Your task to perform on an android device: Go to privacy settings Image 0: 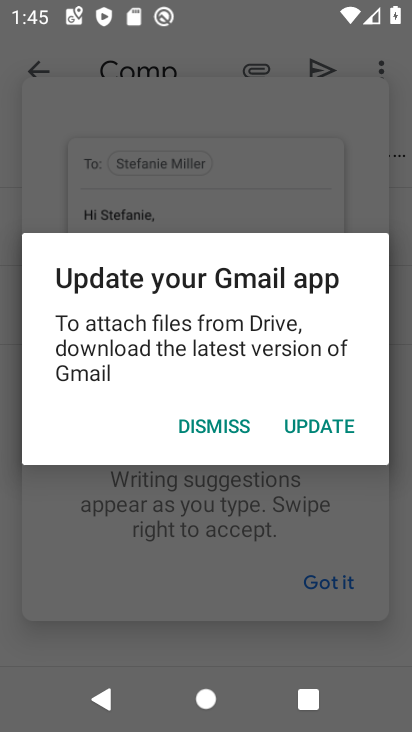
Step 0: press home button
Your task to perform on an android device: Go to privacy settings Image 1: 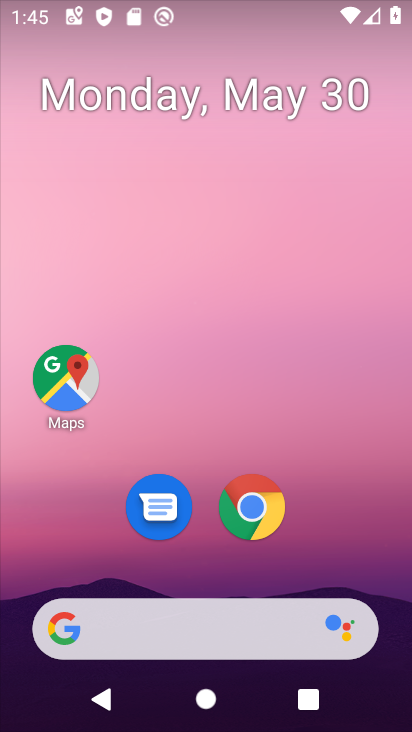
Step 1: drag from (221, 580) to (203, 1)
Your task to perform on an android device: Go to privacy settings Image 2: 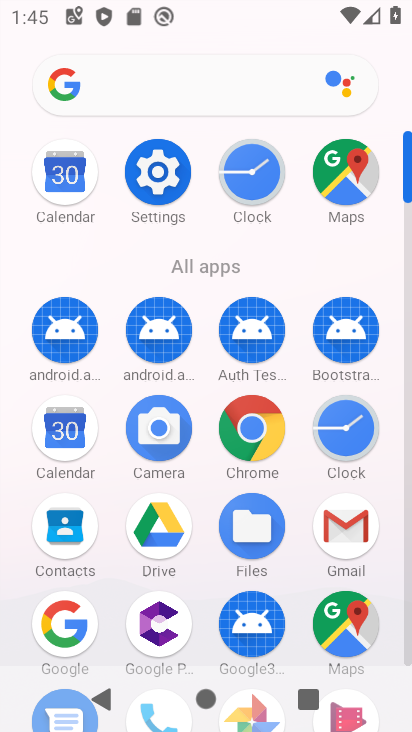
Step 2: click (160, 186)
Your task to perform on an android device: Go to privacy settings Image 3: 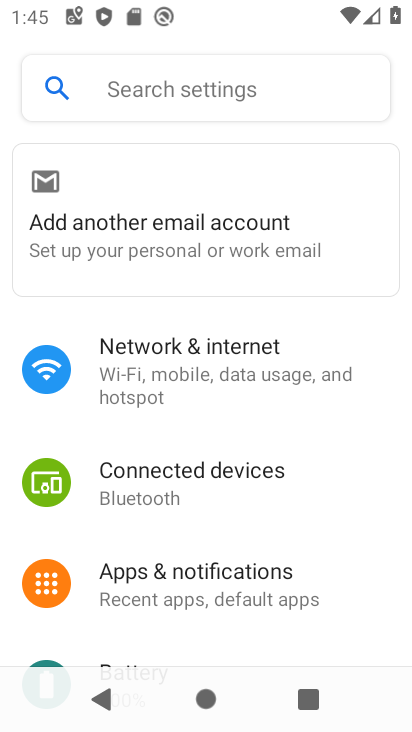
Step 3: drag from (152, 591) to (147, 0)
Your task to perform on an android device: Go to privacy settings Image 4: 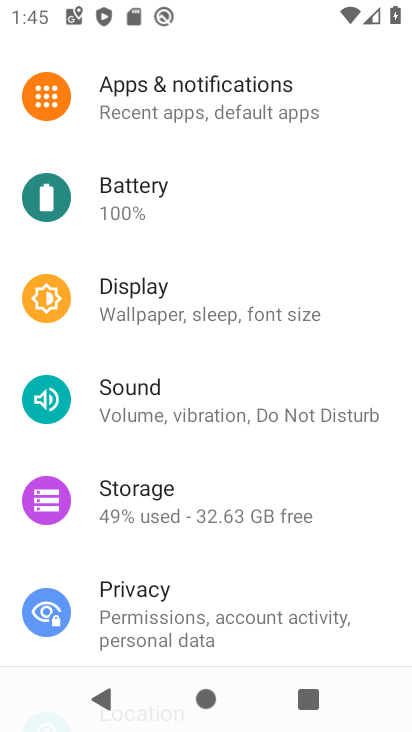
Step 4: click (114, 612)
Your task to perform on an android device: Go to privacy settings Image 5: 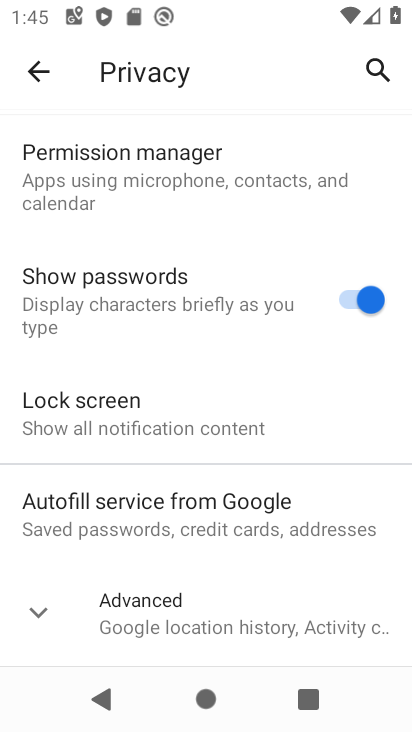
Step 5: task complete